Your task to perform on an android device: Open maps Image 0: 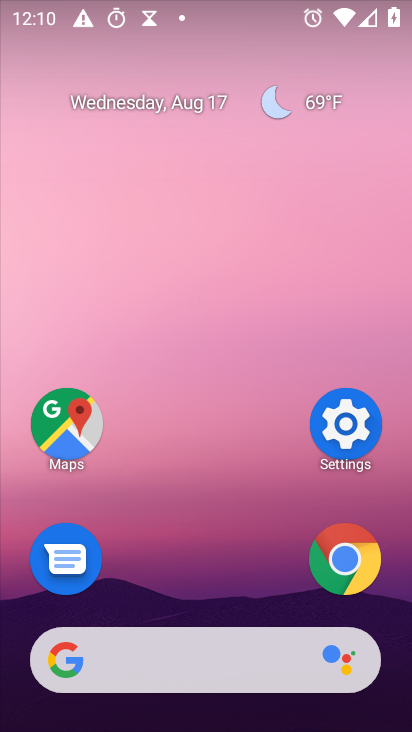
Step 0: press home button
Your task to perform on an android device: Open maps Image 1: 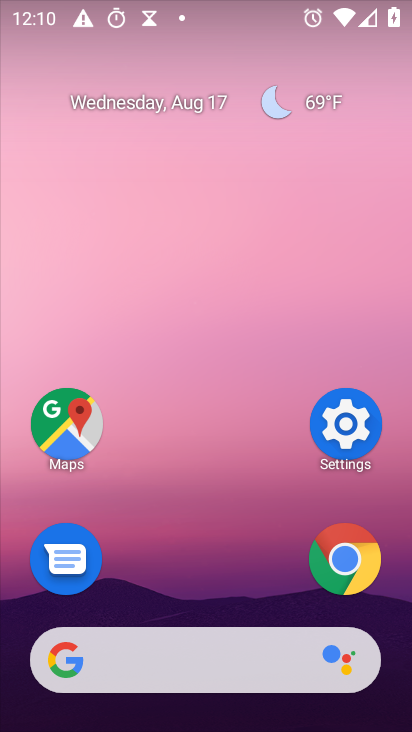
Step 1: click (67, 424)
Your task to perform on an android device: Open maps Image 2: 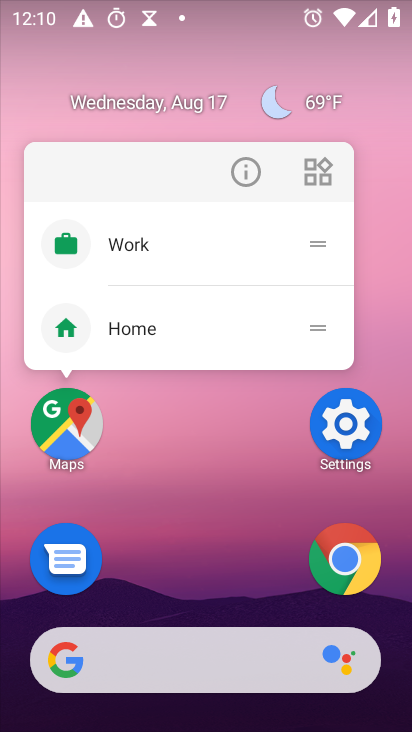
Step 2: click (67, 424)
Your task to perform on an android device: Open maps Image 3: 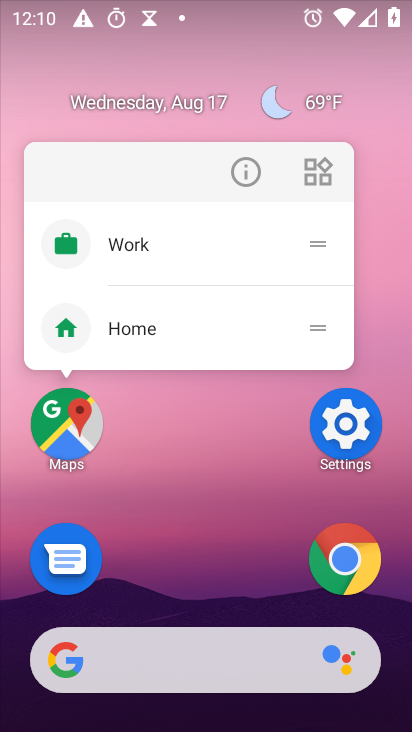
Step 3: click (67, 426)
Your task to perform on an android device: Open maps Image 4: 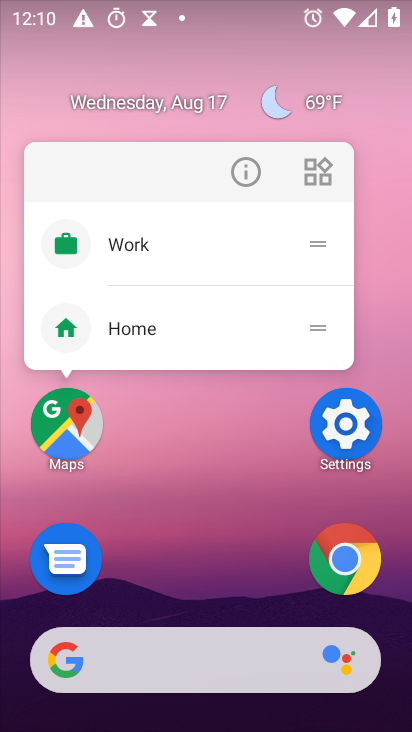
Step 4: click (67, 426)
Your task to perform on an android device: Open maps Image 5: 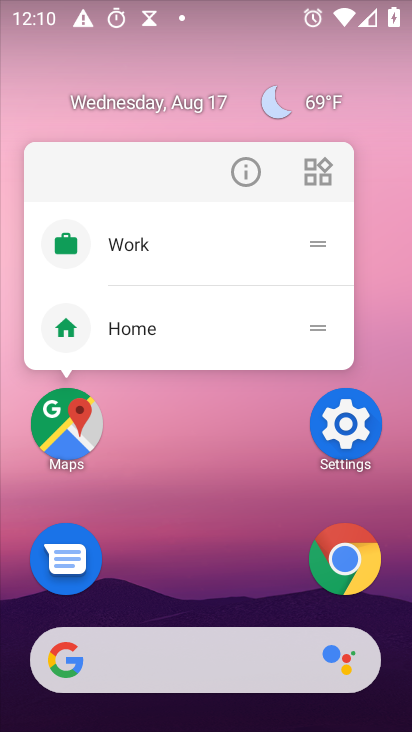
Step 5: click (67, 430)
Your task to perform on an android device: Open maps Image 6: 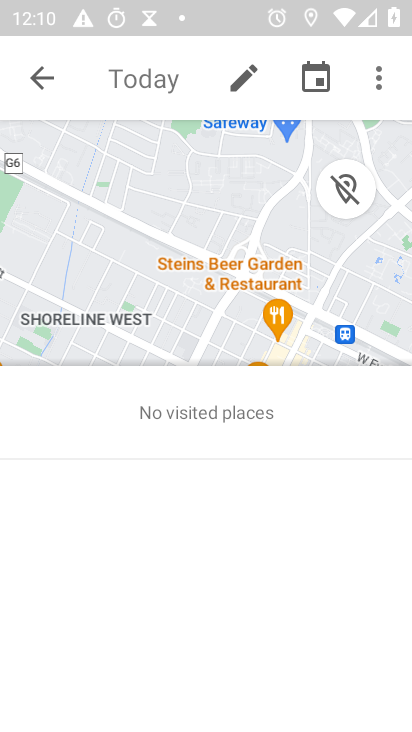
Step 6: task complete